Your task to perform on an android device: snooze an email in the gmail app Image 0: 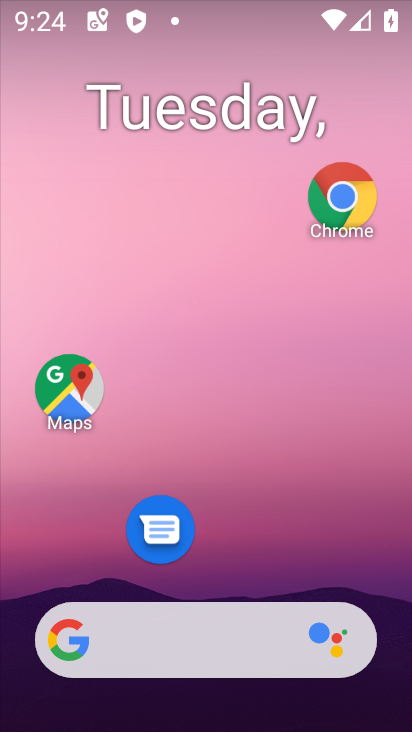
Step 0: drag from (242, 573) to (191, 127)
Your task to perform on an android device: snooze an email in the gmail app Image 1: 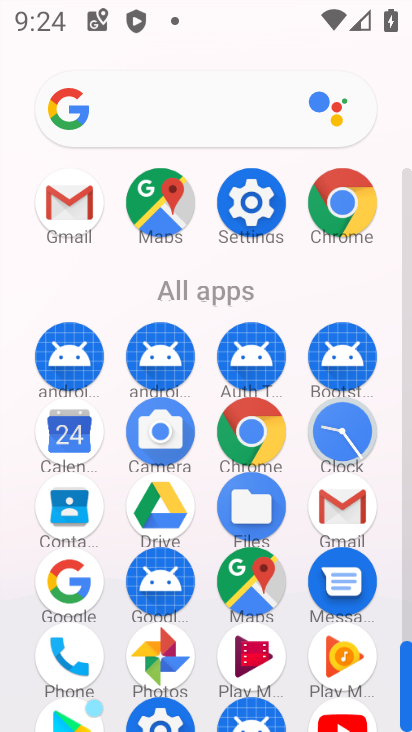
Step 1: click (65, 219)
Your task to perform on an android device: snooze an email in the gmail app Image 2: 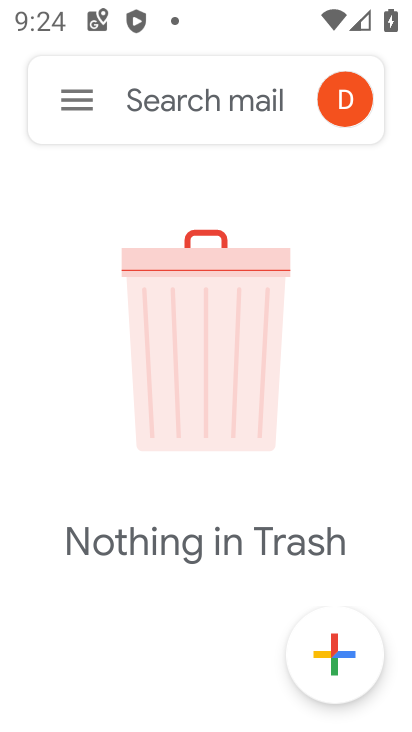
Step 2: click (81, 105)
Your task to perform on an android device: snooze an email in the gmail app Image 3: 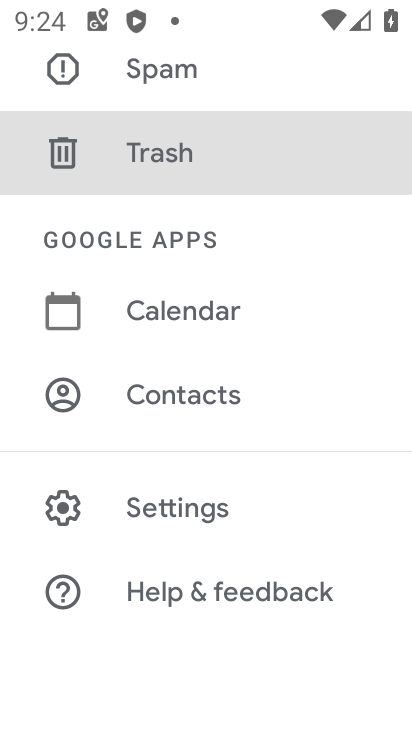
Step 3: drag from (192, 271) to (181, 729)
Your task to perform on an android device: snooze an email in the gmail app Image 4: 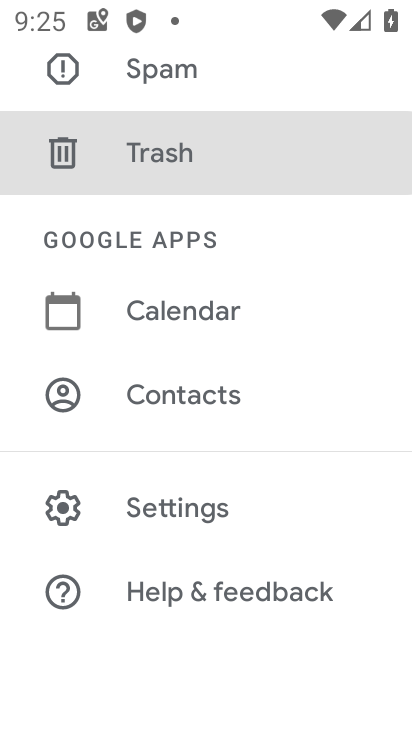
Step 4: drag from (228, 124) to (121, 506)
Your task to perform on an android device: snooze an email in the gmail app Image 5: 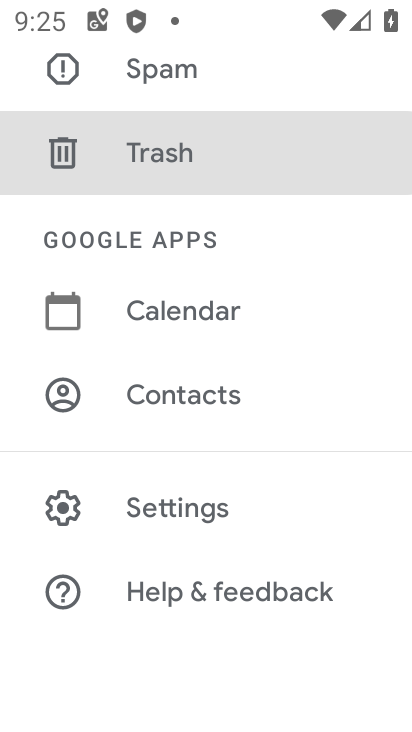
Step 5: drag from (172, 402) to (178, 583)
Your task to perform on an android device: snooze an email in the gmail app Image 6: 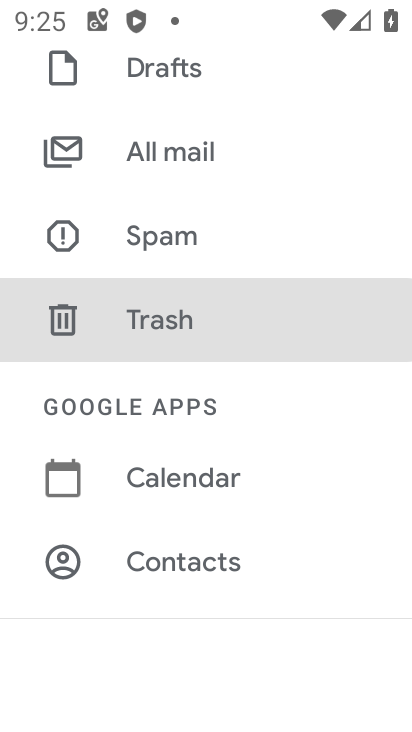
Step 6: click (172, 146)
Your task to perform on an android device: snooze an email in the gmail app Image 7: 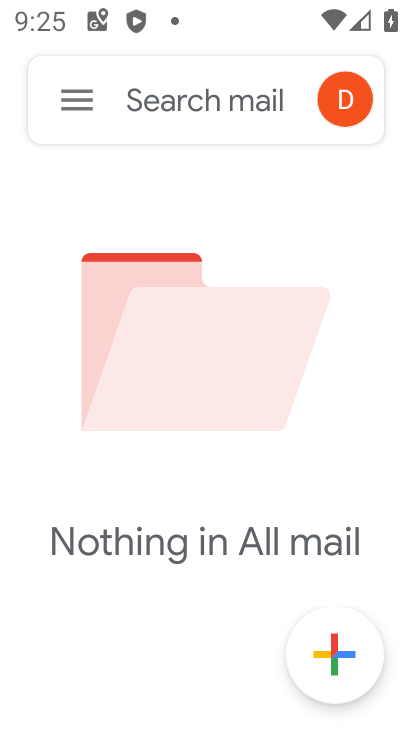
Step 7: task complete